Your task to perform on an android device: Open maps Image 0: 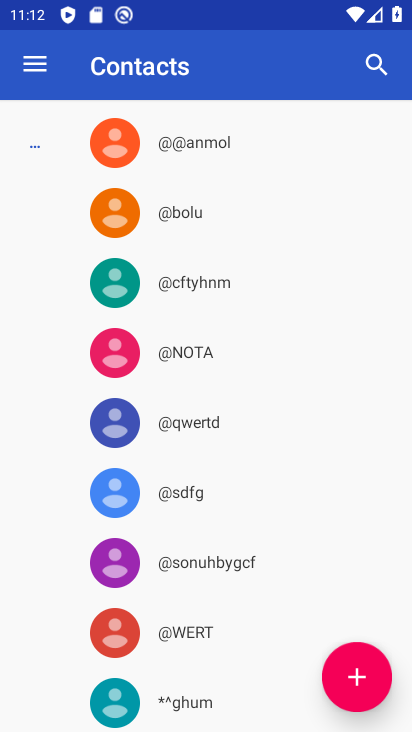
Step 0: press home button
Your task to perform on an android device: Open maps Image 1: 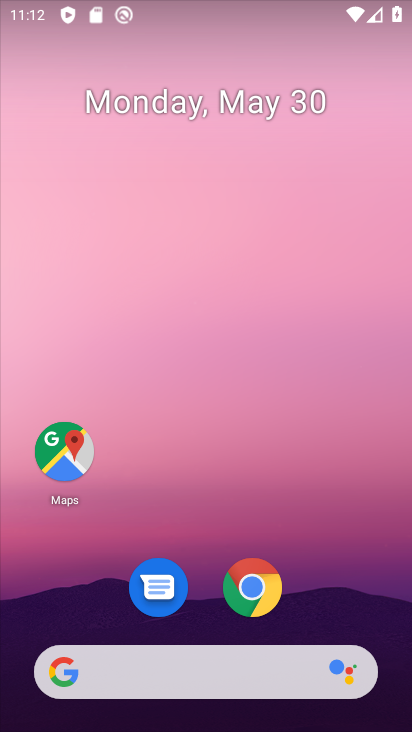
Step 1: click (52, 452)
Your task to perform on an android device: Open maps Image 2: 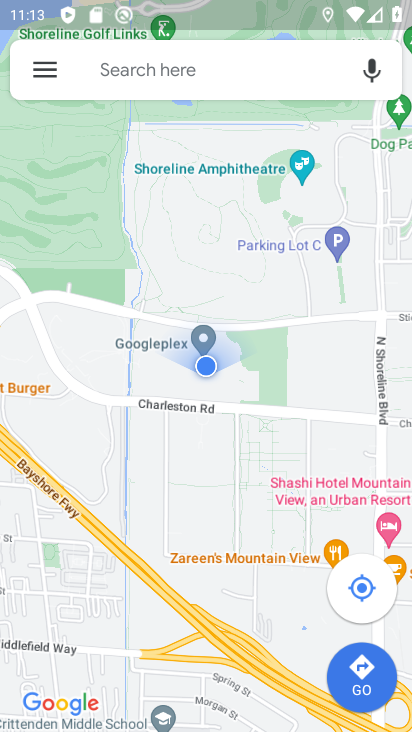
Step 2: task complete